Your task to perform on an android device: Open network settings Image 0: 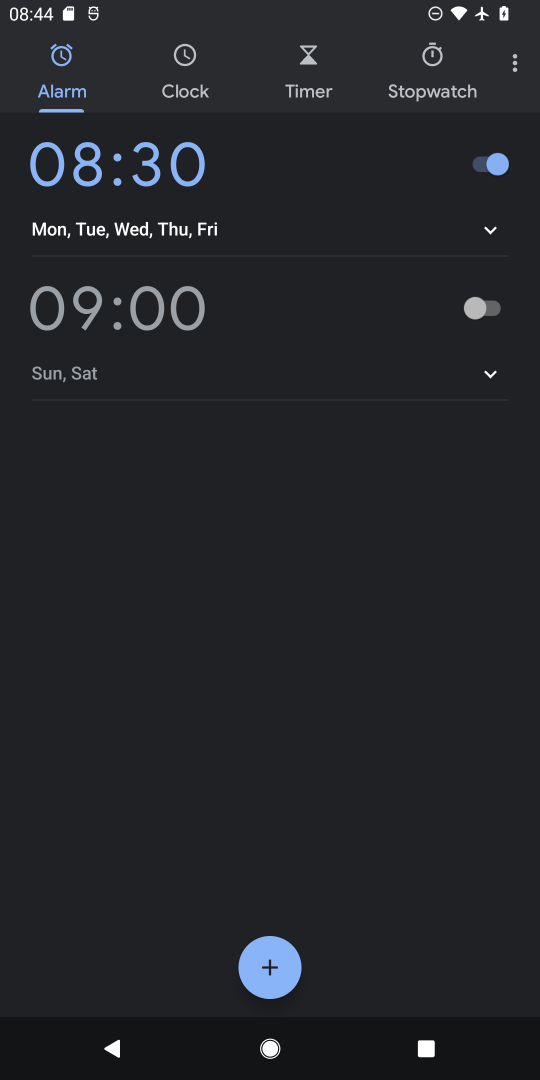
Step 0: press home button
Your task to perform on an android device: Open network settings Image 1: 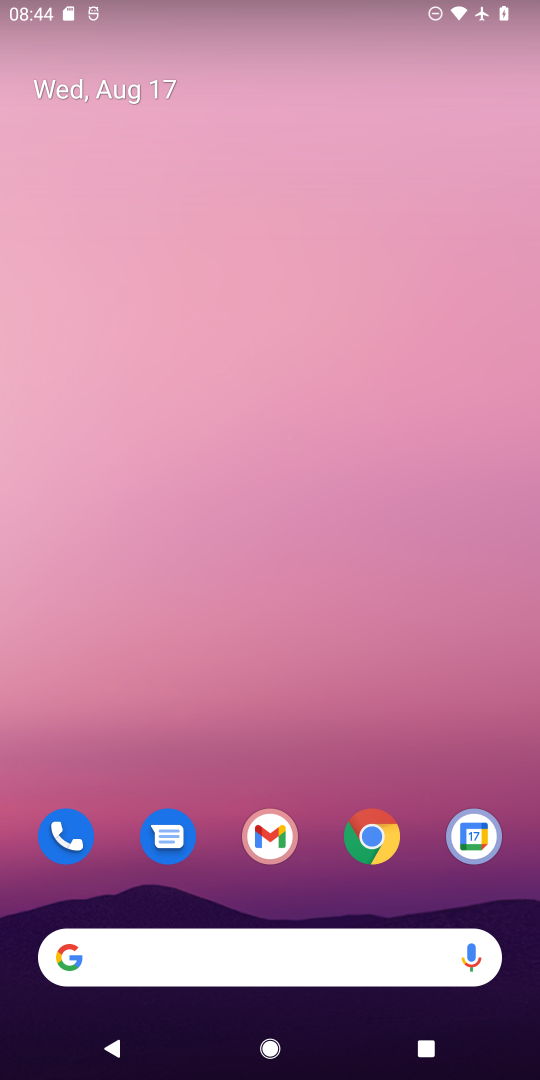
Step 1: drag from (288, 803) to (240, 194)
Your task to perform on an android device: Open network settings Image 2: 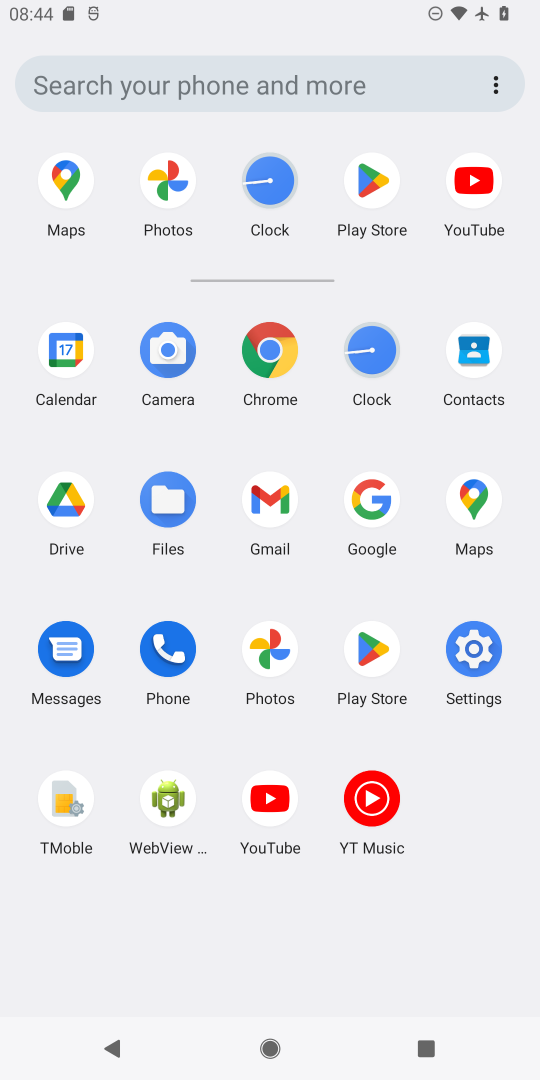
Step 2: click (475, 629)
Your task to perform on an android device: Open network settings Image 3: 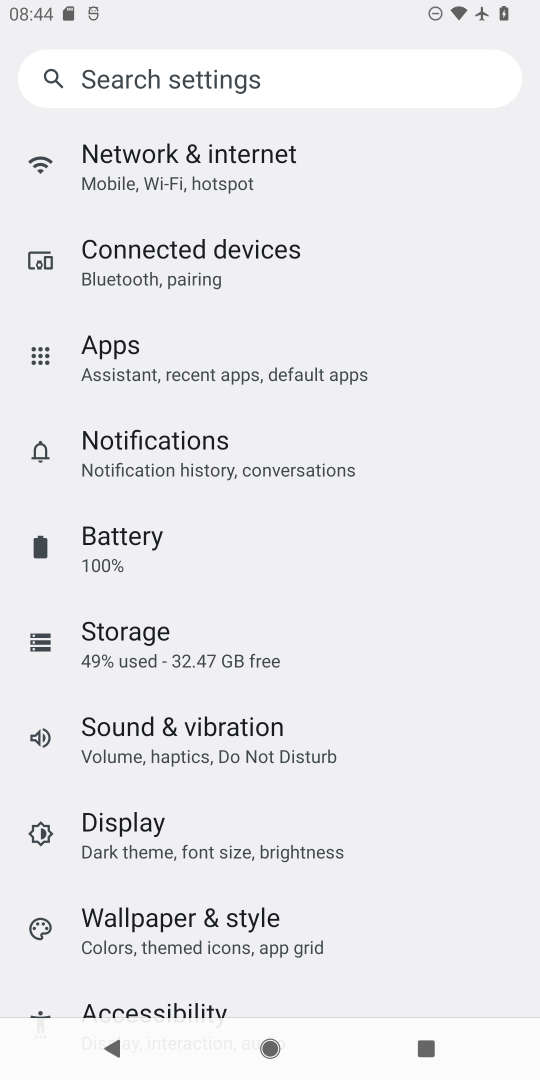
Step 3: click (241, 151)
Your task to perform on an android device: Open network settings Image 4: 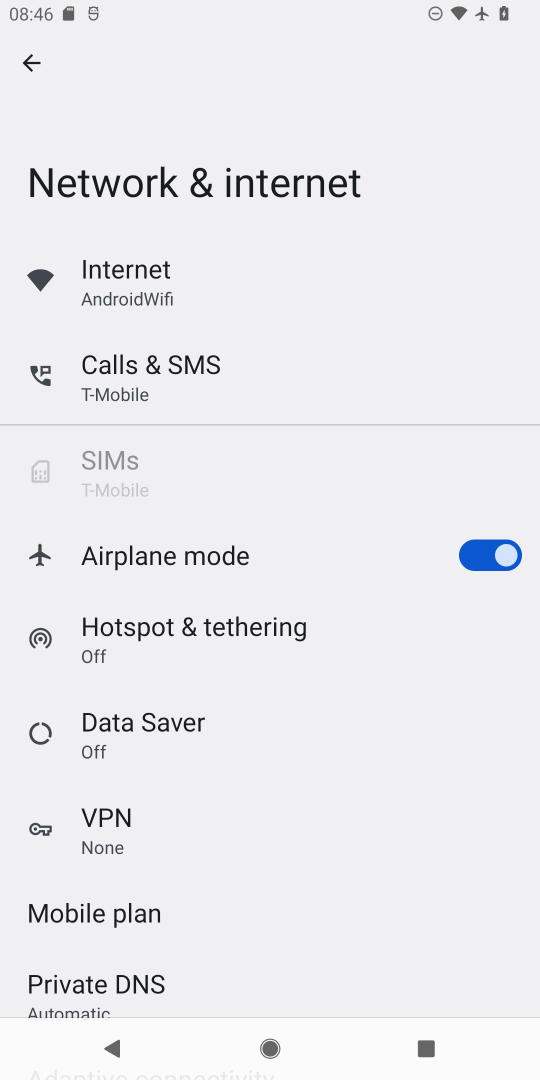
Step 4: task complete